Your task to perform on an android device: turn vacation reply on in the gmail app Image 0: 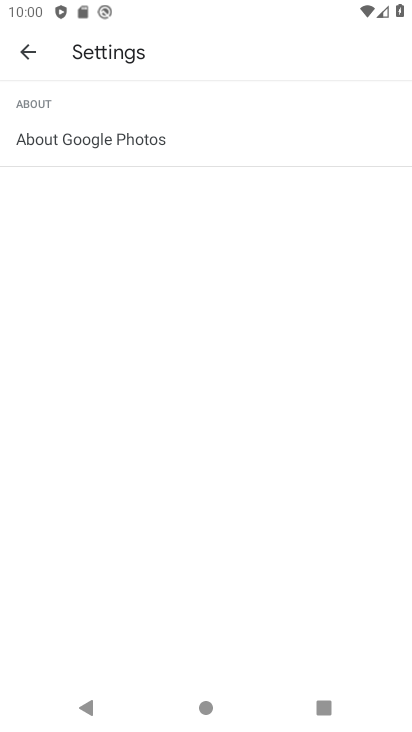
Step 0: press home button
Your task to perform on an android device: turn vacation reply on in the gmail app Image 1: 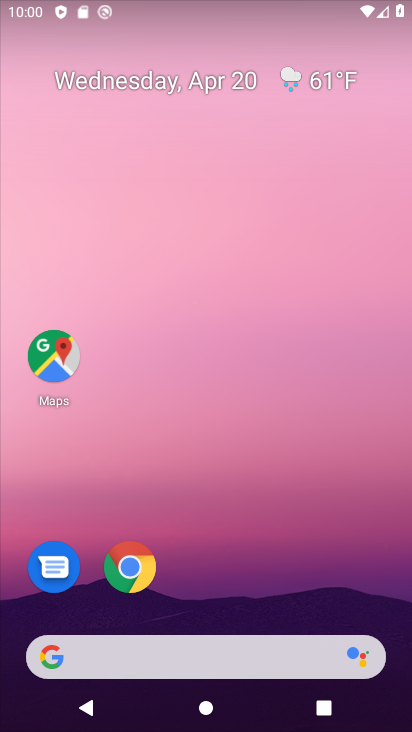
Step 1: drag from (225, 586) to (232, 169)
Your task to perform on an android device: turn vacation reply on in the gmail app Image 2: 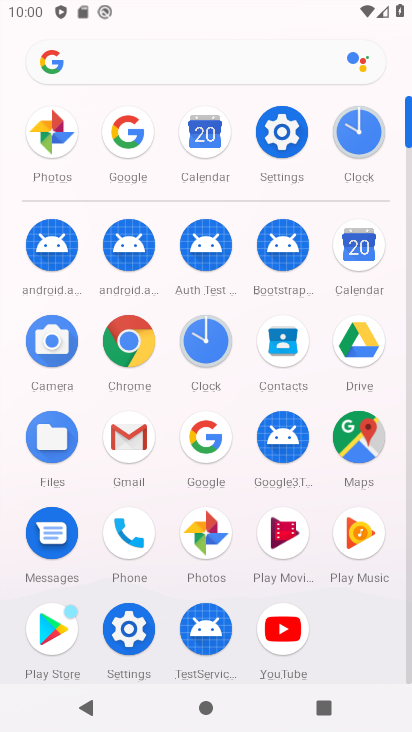
Step 2: click (131, 426)
Your task to perform on an android device: turn vacation reply on in the gmail app Image 3: 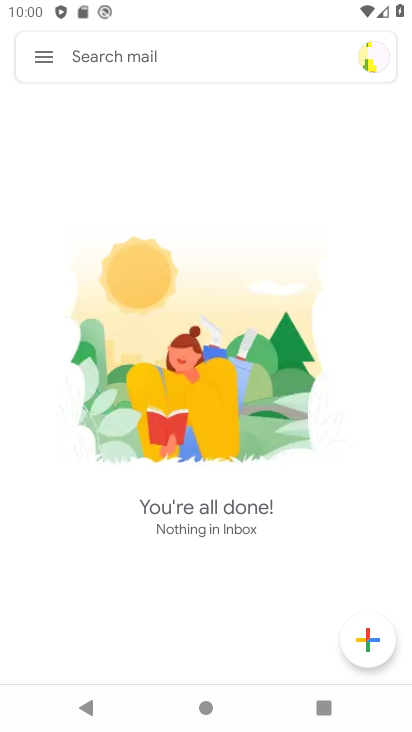
Step 3: click (37, 51)
Your task to perform on an android device: turn vacation reply on in the gmail app Image 4: 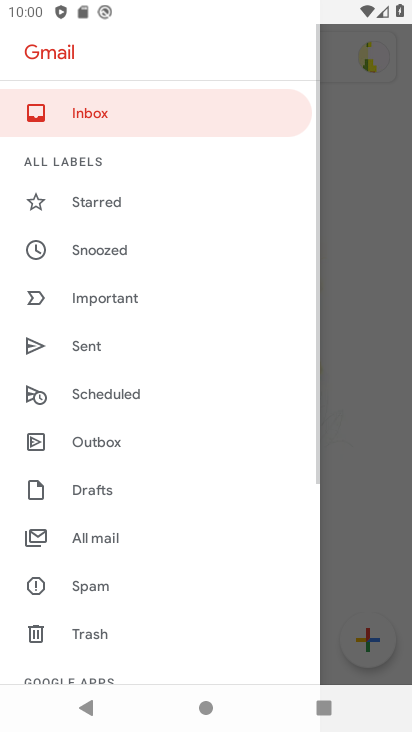
Step 4: drag from (158, 623) to (174, 331)
Your task to perform on an android device: turn vacation reply on in the gmail app Image 5: 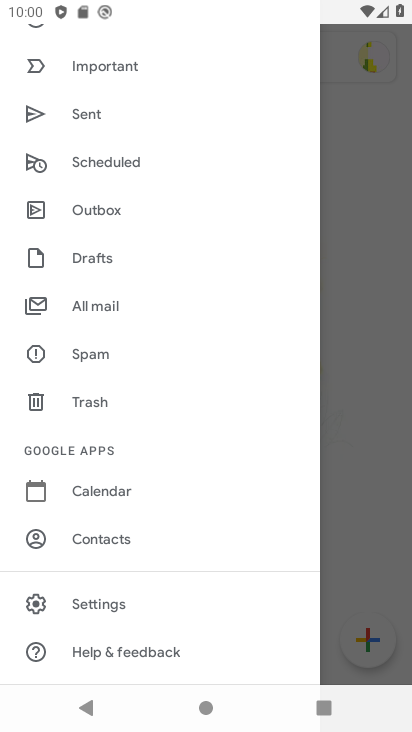
Step 5: click (103, 590)
Your task to perform on an android device: turn vacation reply on in the gmail app Image 6: 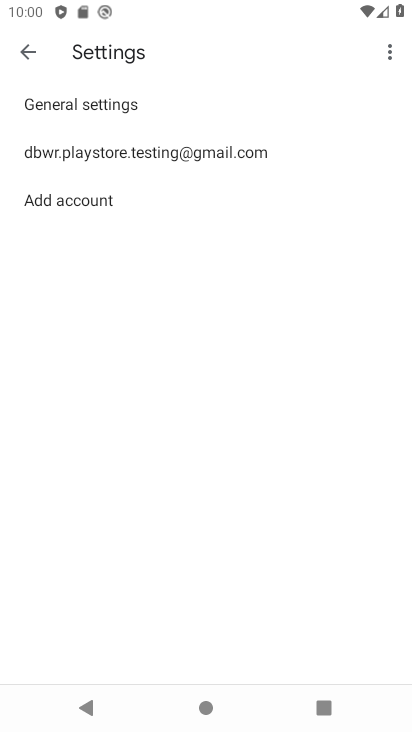
Step 6: click (181, 153)
Your task to perform on an android device: turn vacation reply on in the gmail app Image 7: 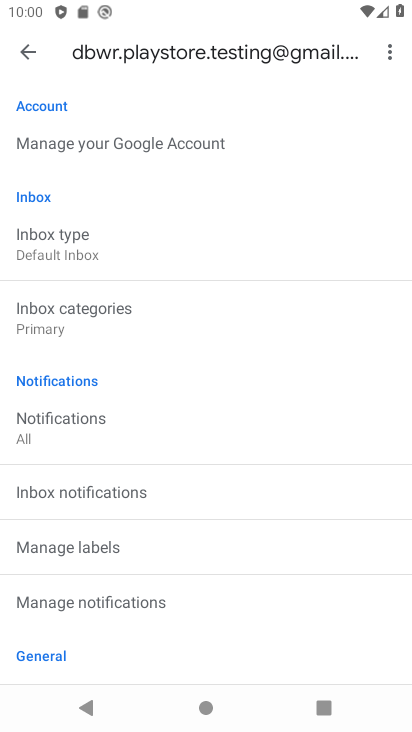
Step 7: drag from (188, 639) to (245, 277)
Your task to perform on an android device: turn vacation reply on in the gmail app Image 8: 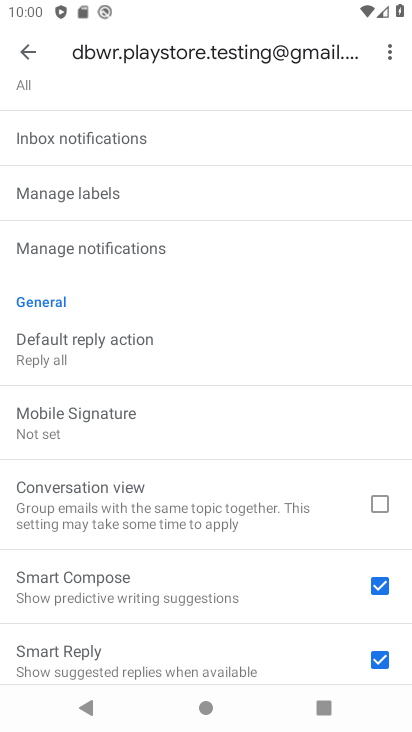
Step 8: drag from (194, 608) to (219, 284)
Your task to perform on an android device: turn vacation reply on in the gmail app Image 9: 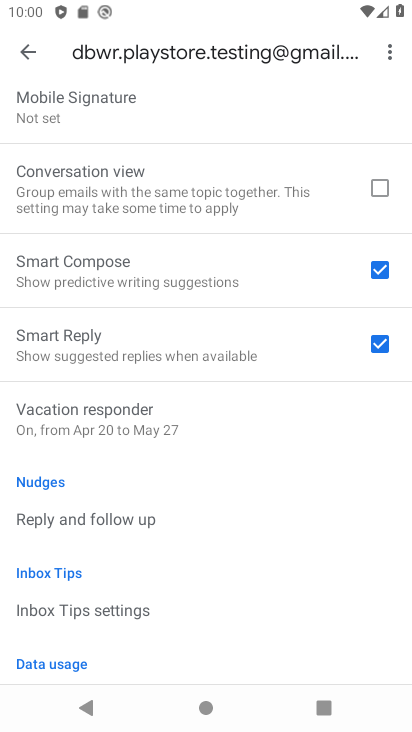
Step 9: click (156, 428)
Your task to perform on an android device: turn vacation reply on in the gmail app Image 10: 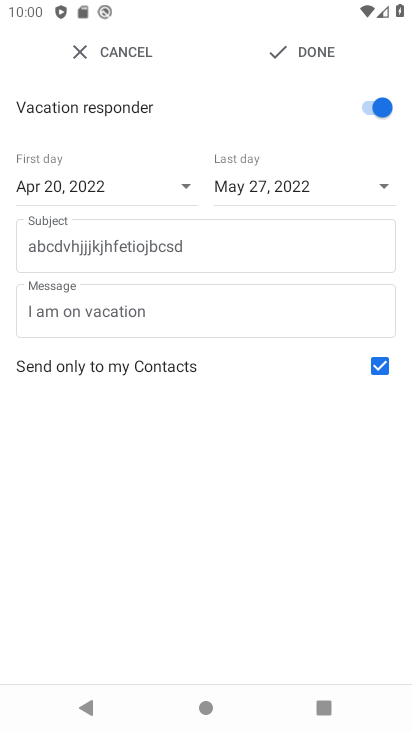
Step 10: task complete